Your task to perform on an android device: make emails show in primary in the gmail app Image 0: 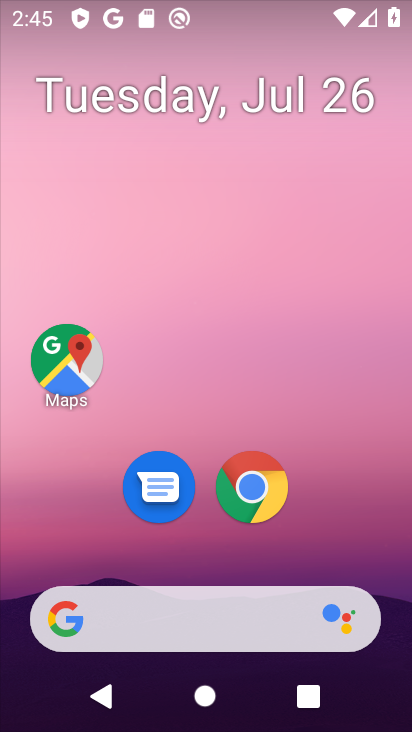
Step 0: drag from (161, 586) to (302, 22)
Your task to perform on an android device: make emails show in primary in the gmail app Image 1: 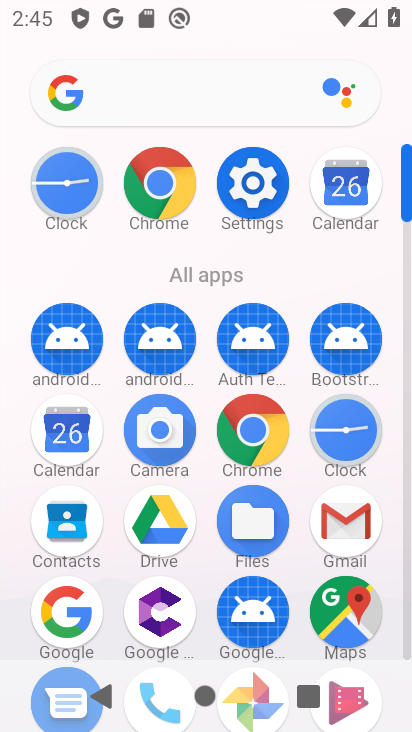
Step 1: click (345, 514)
Your task to perform on an android device: make emails show in primary in the gmail app Image 2: 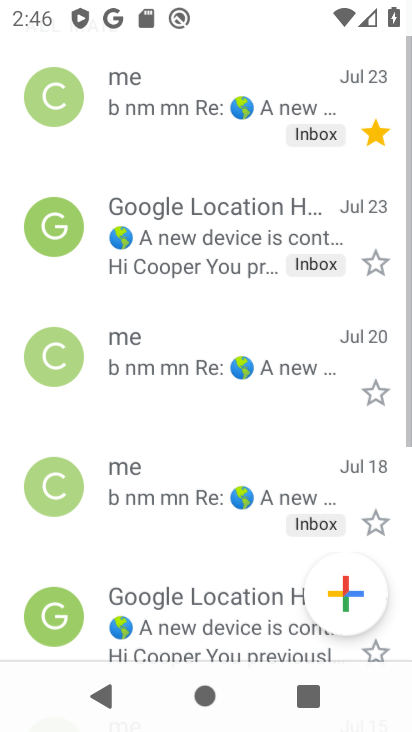
Step 2: drag from (174, 136) to (207, 620)
Your task to perform on an android device: make emails show in primary in the gmail app Image 3: 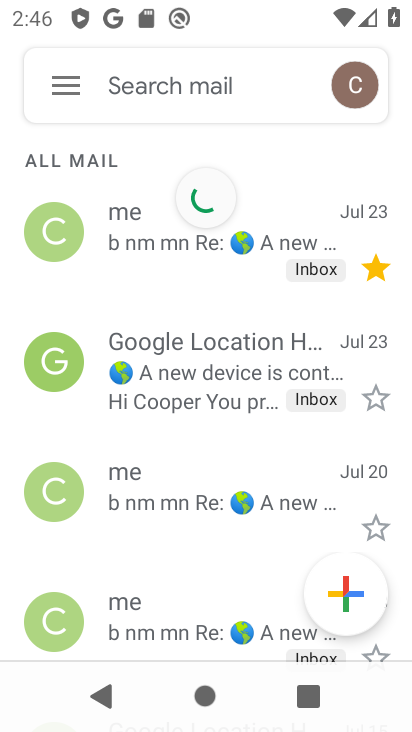
Step 3: click (72, 83)
Your task to perform on an android device: make emails show in primary in the gmail app Image 4: 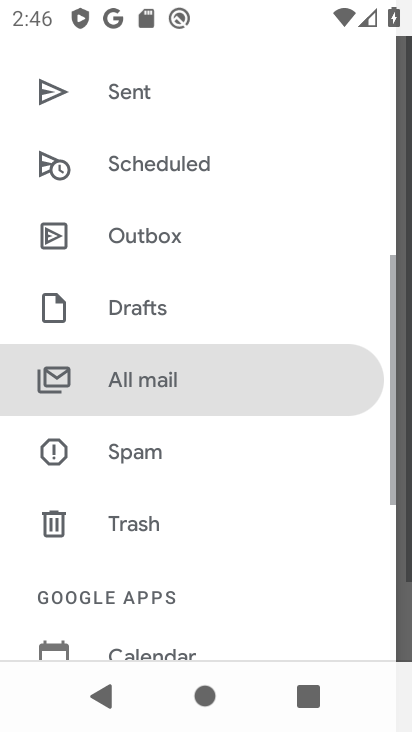
Step 4: drag from (173, 637) to (294, 77)
Your task to perform on an android device: make emails show in primary in the gmail app Image 5: 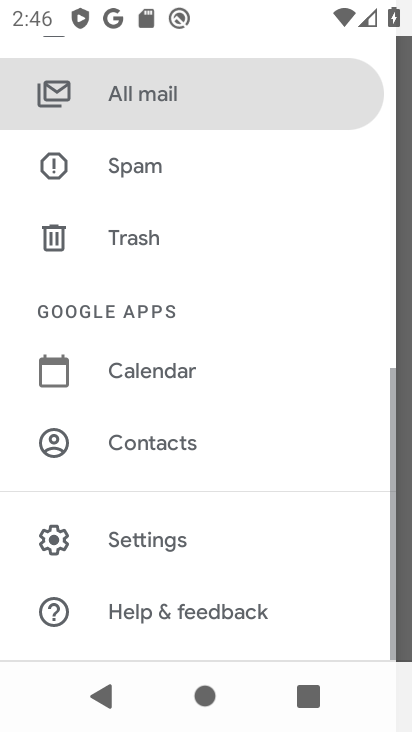
Step 5: click (152, 562)
Your task to perform on an android device: make emails show in primary in the gmail app Image 6: 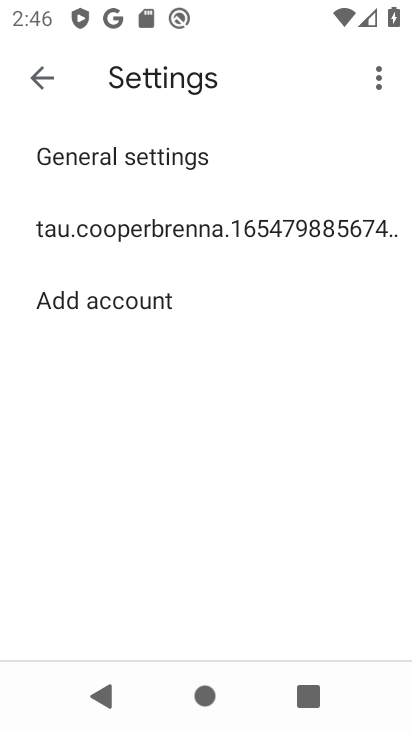
Step 6: click (146, 224)
Your task to perform on an android device: make emails show in primary in the gmail app Image 7: 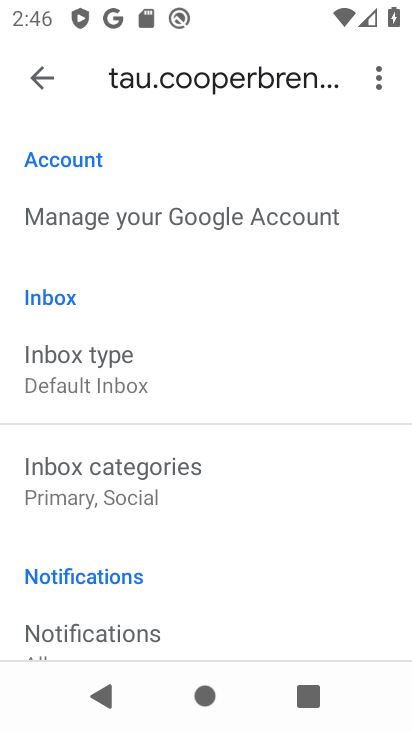
Step 7: click (92, 465)
Your task to perform on an android device: make emails show in primary in the gmail app Image 8: 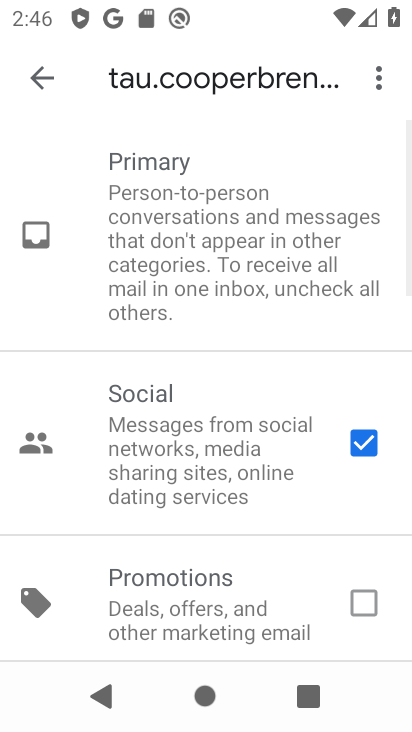
Step 8: drag from (254, 605) to (217, 400)
Your task to perform on an android device: make emails show in primary in the gmail app Image 9: 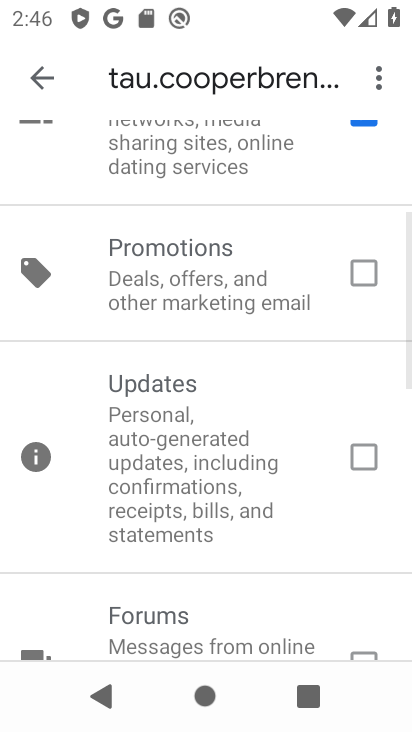
Step 9: click (366, 281)
Your task to perform on an android device: make emails show in primary in the gmail app Image 10: 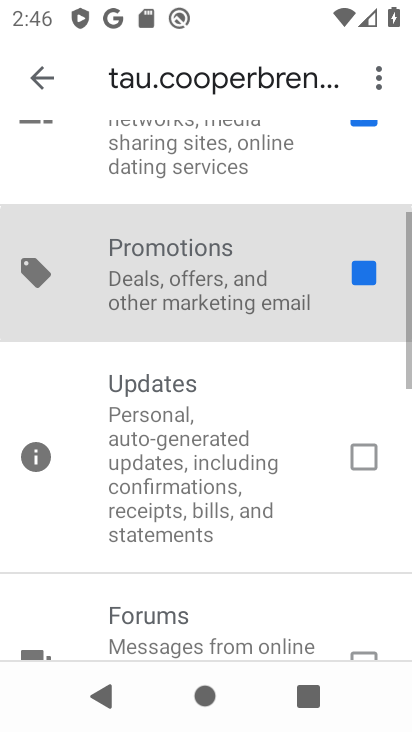
Step 10: click (360, 457)
Your task to perform on an android device: make emails show in primary in the gmail app Image 11: 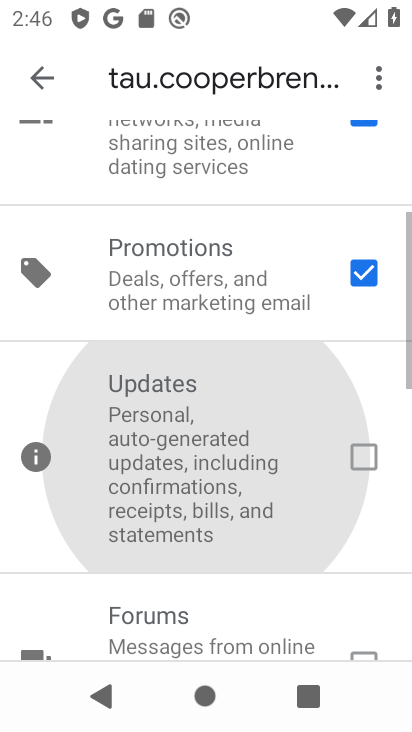
Step 11: drag from (31, 527) to (161, 193)
Your task to perform on an android device: make emails show in primary in the gmail app Image 12: 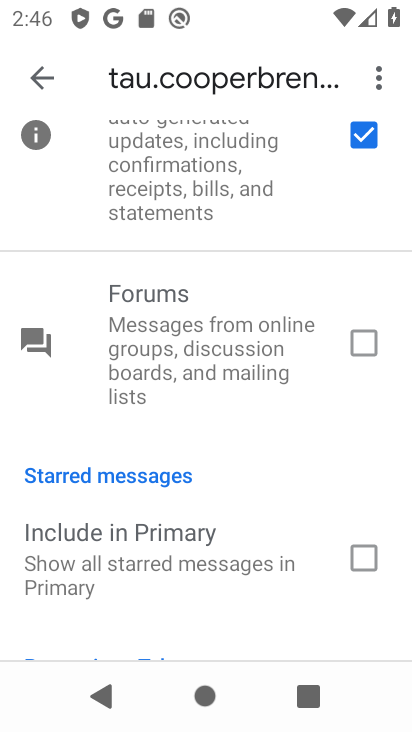
Step 12: click (361, 339)
Your task to perform on an android device: make emails show in primary in the gmail app Image 13: 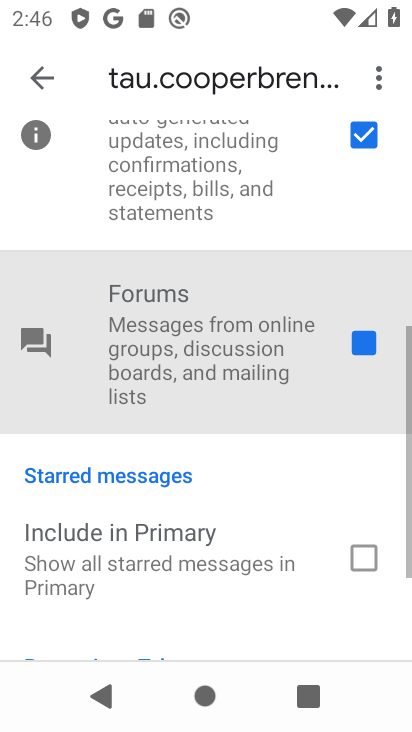
Step 13: click (351, 550)
Your task to perform on an android device: make emails show in primary in the gmail app Image 14: 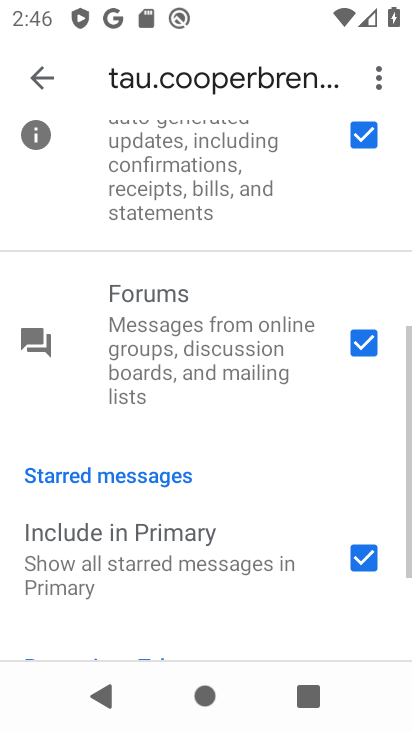
Step 14: task complete